Your task to perform on an android device: remove spam from my inbox in the gmail app Image 0: 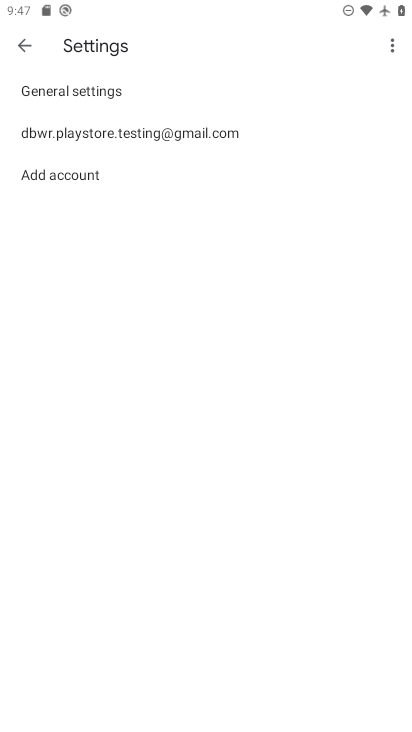
Step 0: press home button
Your task to perform on an android device: remove spam from my inbox in the gmail app Image 1: 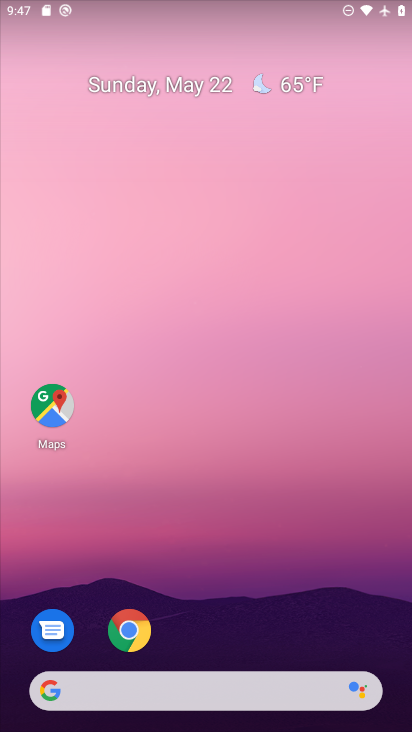
Step 1: drag from (197, 698) to (377, 104)
Your task to perform on an android device: remove spam from my inbox in the gmail app Image 2: 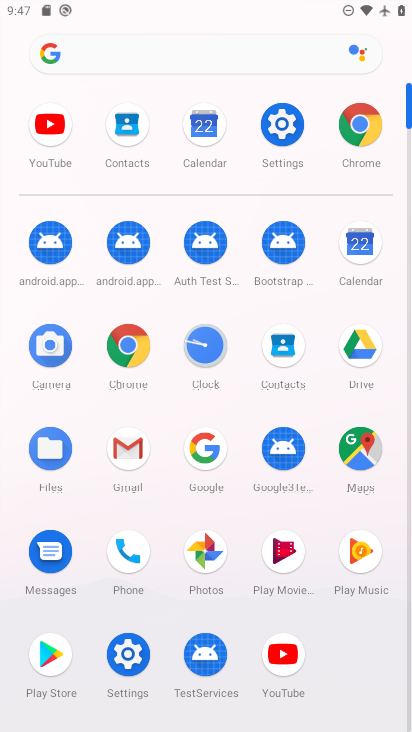
Step 2: click (126, 453)
Your task to perform on an android device: remove spam from my inbox in the gmail app Image 3: 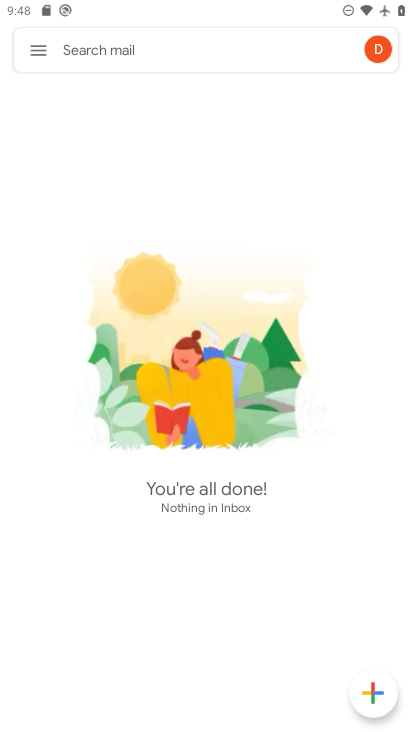
Step 3: click (37, 49)
Your task to perform on an android device: remove spam from my inbox in the gmail app Image 4: 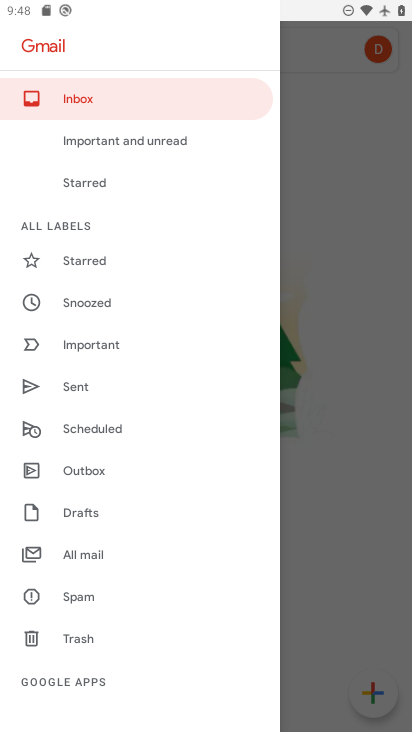
Step 4: click (82, 596)
Your task to perform on an android device: remove spam from my inbox in the gmail app Image 5: 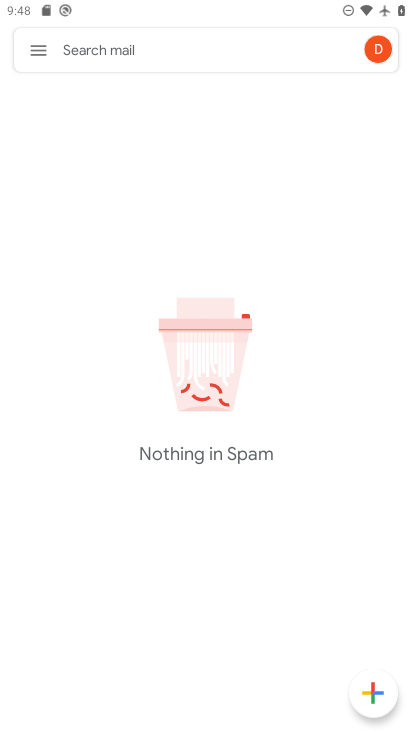
Step 5: task complete